Your task to perform on an android device: Show me popular games on the Play Store Image 0: 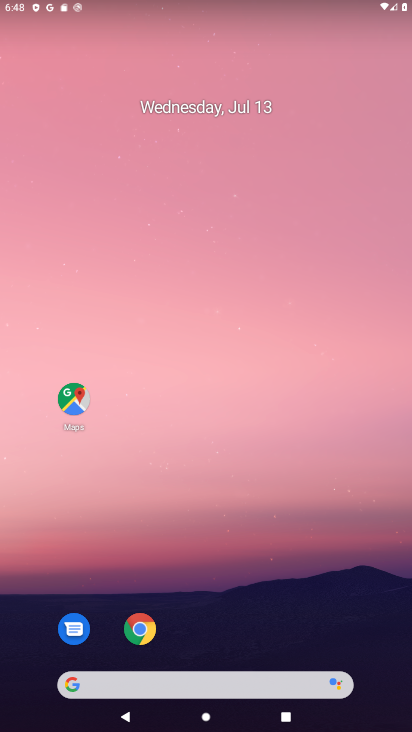
Step 0: drag from (252, 686) to (306, 131)
Your task to perform on an android device: Show me popular games on the Play Store Image 1: 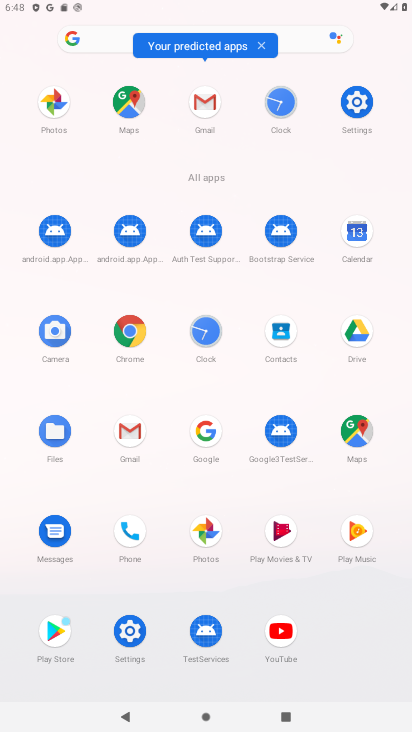
Step 1: click (58, 622)
Your task to perform on an android device: Show me popular games on the Play Store Image 2: 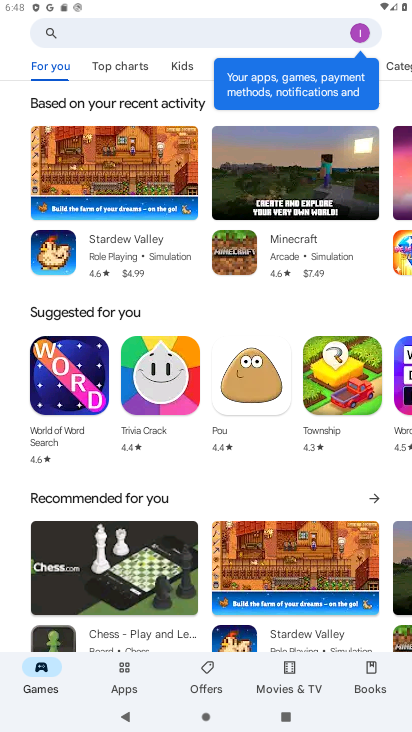
Step 2: click (198, 45)
Your task to perform on an android device: Show me popular games on the Play Store Image 3: 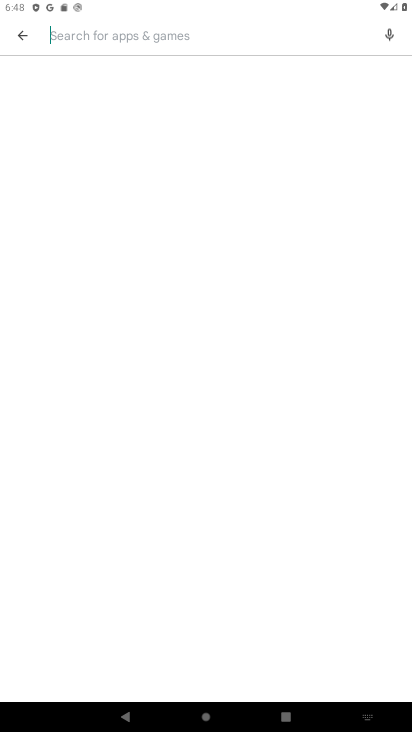
Step 3: click (372, 712)
Your task to perform on an android device: Show me popular games on the Play Store Image 4: 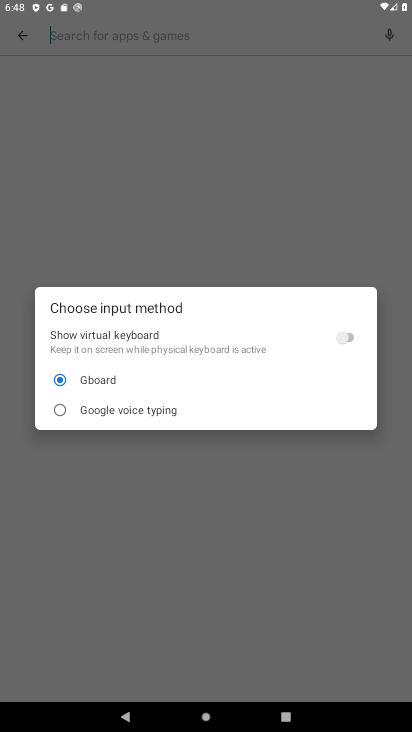
Step 4: click (342, 333)
Your task to perform on an android device: Show me popular games on the Play Store Image 5: 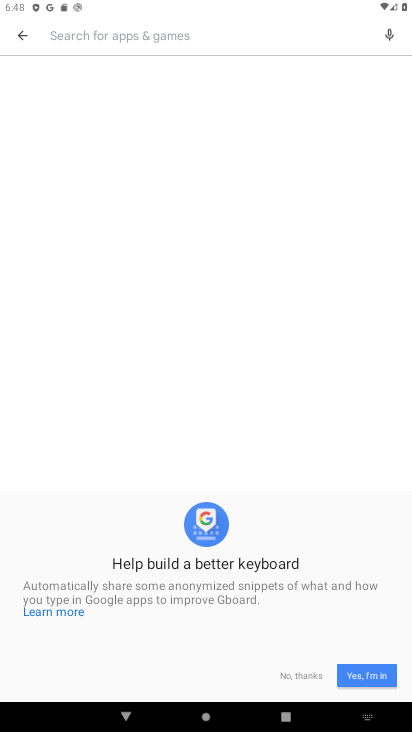
Step 5: click (294, 681)
Your task to perform on an android device: Show me popular games on the Play Store Image 6: 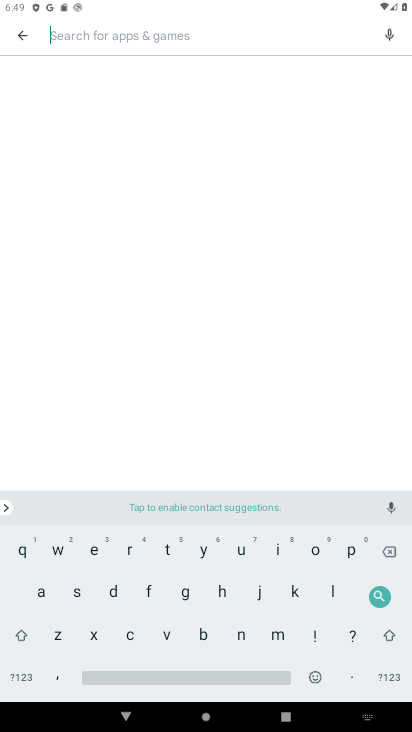
Step 6: click (186, 502)
Your task to perform on an android device: Show me popular games on the Play Store Image 7: 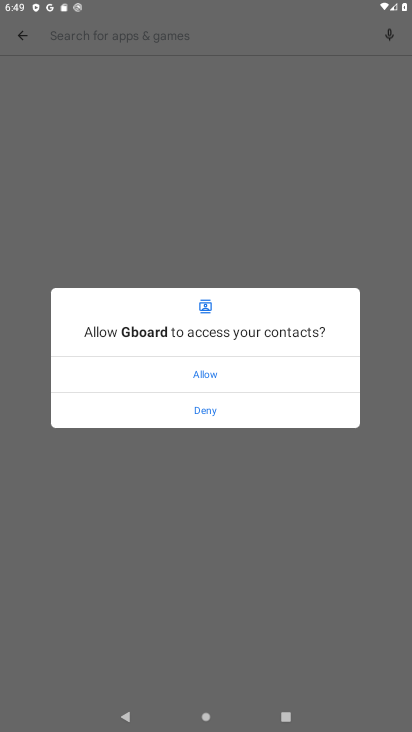
Step 7: click (221, 367)
Your task to perform on an android device: Show me popular games on the Play Store Image 8: 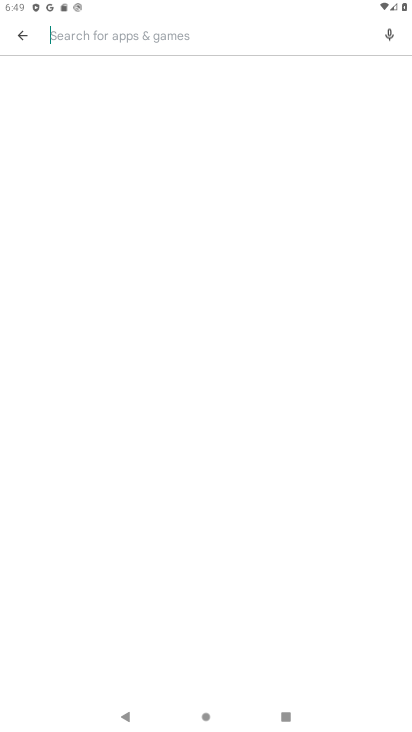
Step 8: click (83, 38)
Your task to perform on an android device: Show me popular games on the Play Store Image 9: 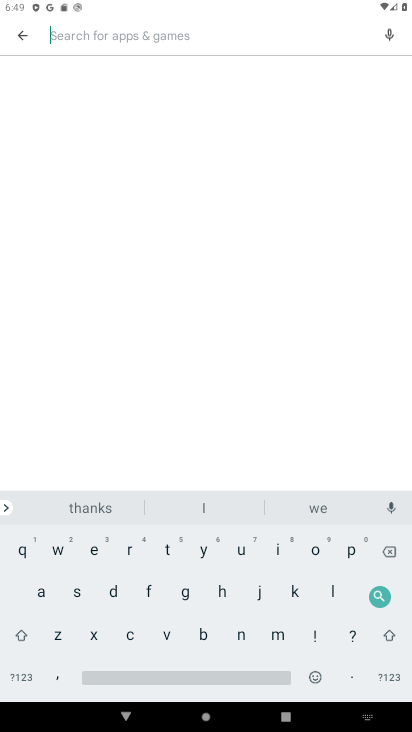
Step 9: click (351, 554)
Your task to perform on an android device: Show me popular games on the Play Store Image 10: 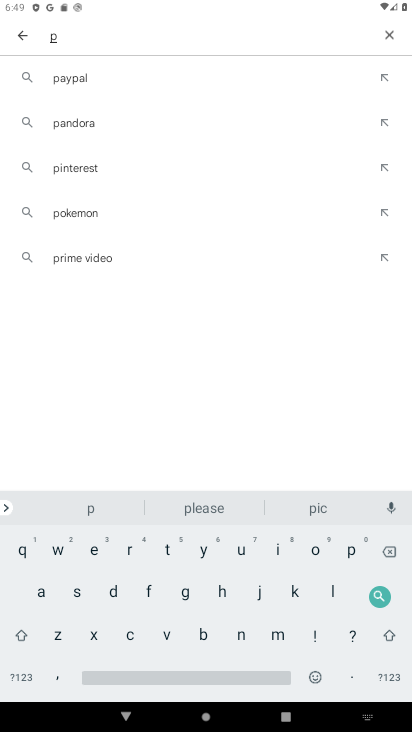
Step 10: click (304, 555)
Your task to perform on an android device: Show me popular games on the Play Store Image 11: 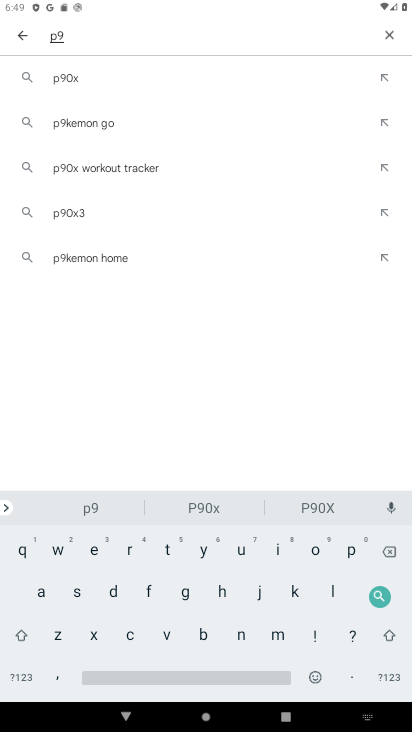
Step 11: click (348, 554)
Your task to perform on an android device: Show me popular games on the Play Store Image 12: 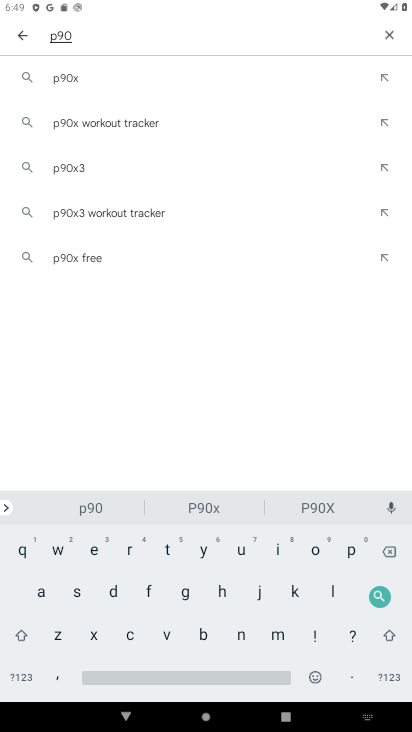
Step 12: click (395, 38)
Your task to perform on an android device: Show me popular games on the Play Store Image 13: 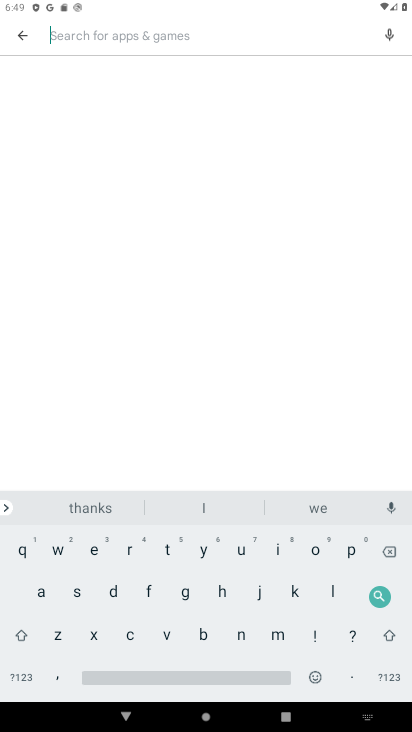
Step 13: click (351, 548)
Your task to perform on an android device: Show me popular games on the Play Store Image 14: 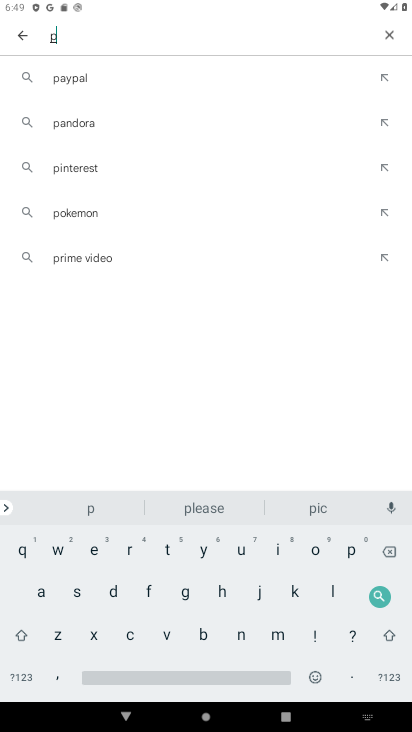
Step 14: click (313, 545)
Your task to perform on an android device: Show me popular games on the Play Store Image 15: 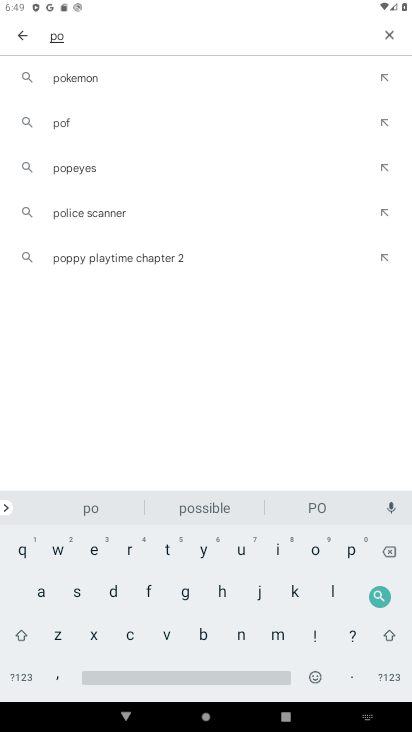
Step 15: click (344, 545)
Your task to perform on an android device: Show me popular games on the Play Store Image 16: 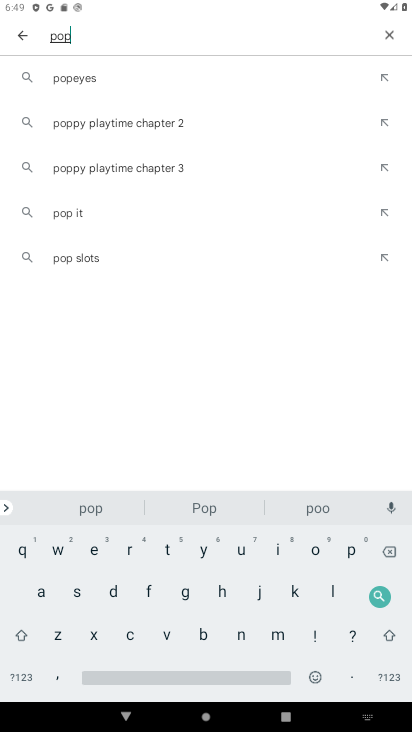
Step 16: click (238, 548)
Your task to perform on an android device: Show me popular games on the Play Store Image 17: 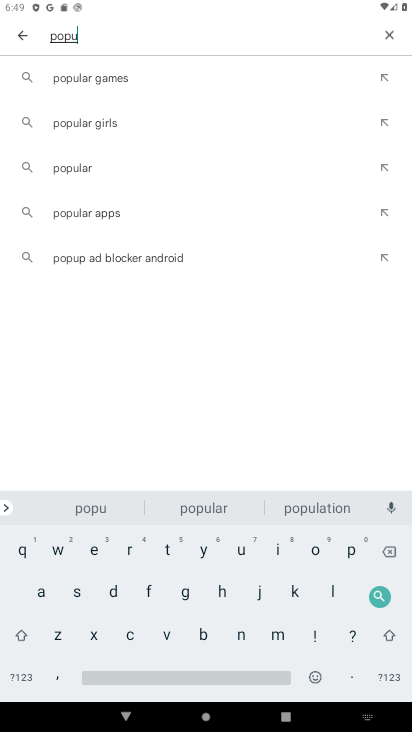
Step 17: click (94, 76)
Your task to perform on an android device: Show me popular games on the Play Store Image 18: 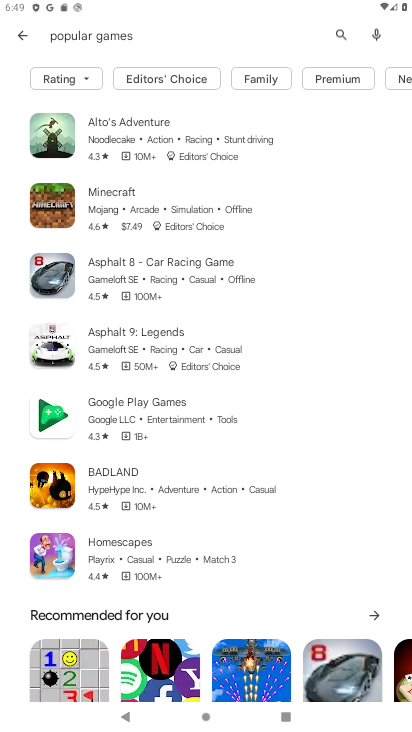
Step 18: task complete